Your task to perform on an android device: Go to Yahoo.com Image 0: 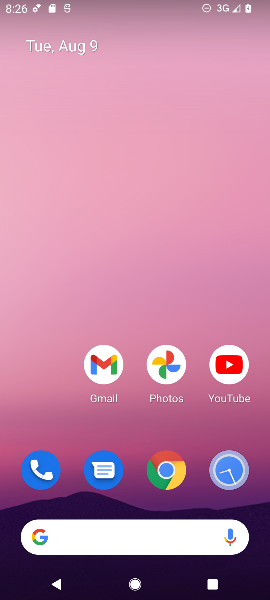
Step 0: click (166, 469)
Your task to perform on an android device: Go to Yahoo.com Image 1: 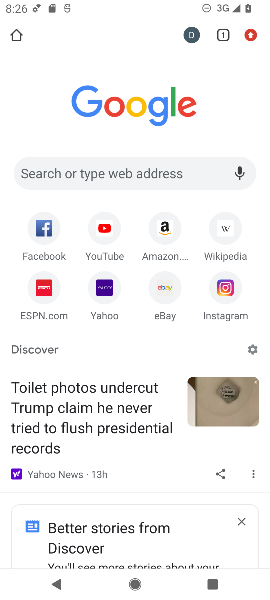
Step 1: click (103, 290)
Your task to perform on an android device: Go to Yahoo.com Image 2: 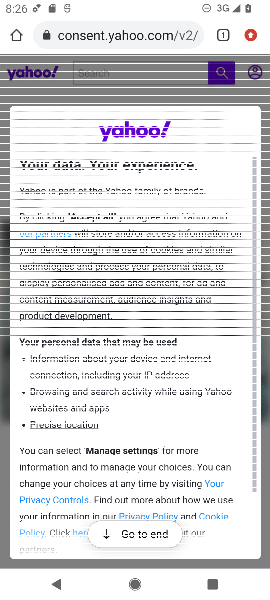
Step 2: click (136, 533)
Your task to perform on an android device: Go to Yahoo.com Image 3: 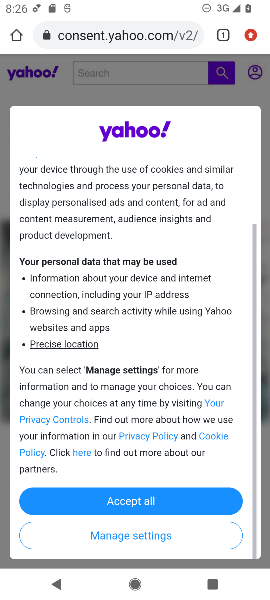
Step 3: click (141, 501)
Your task to perform on an android device: Go to Yahoo.com Image 4: 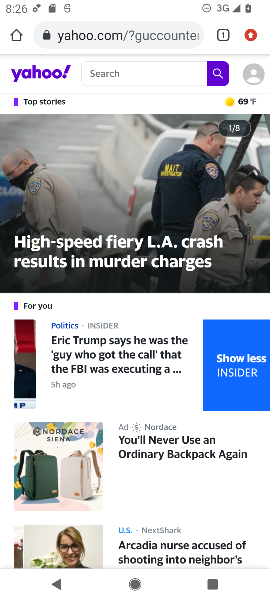
Step 4: task complete